Your task to perform on an android device: Go to settings Image 0: 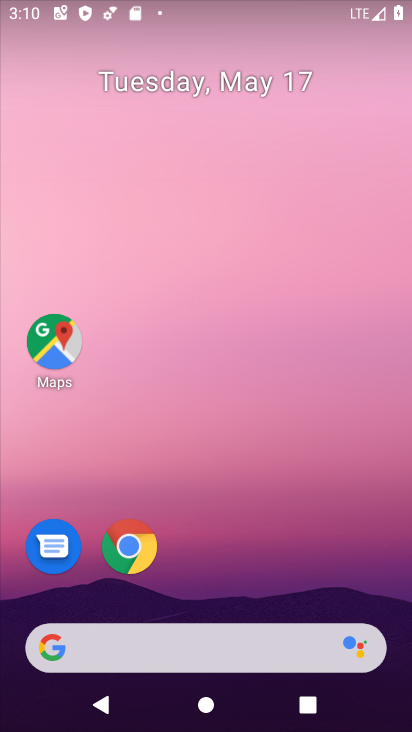
Step 0: press home button
Your task to perform on an android device: Go to settings Image 1: 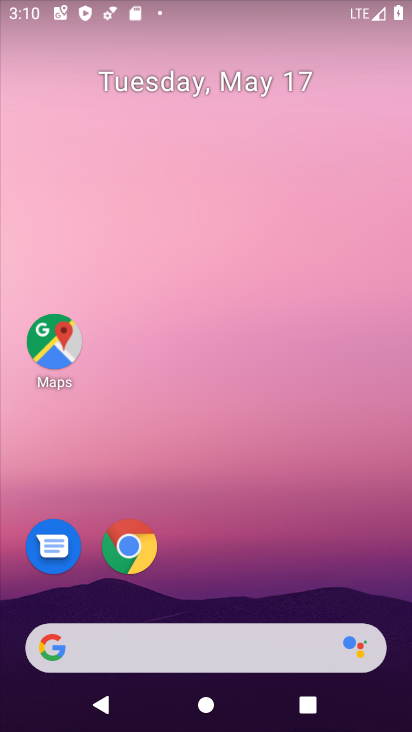
Step 1: drag from (183, 575) to (238, 21)
Your task to perform on an android device: Go to settings Image 2: 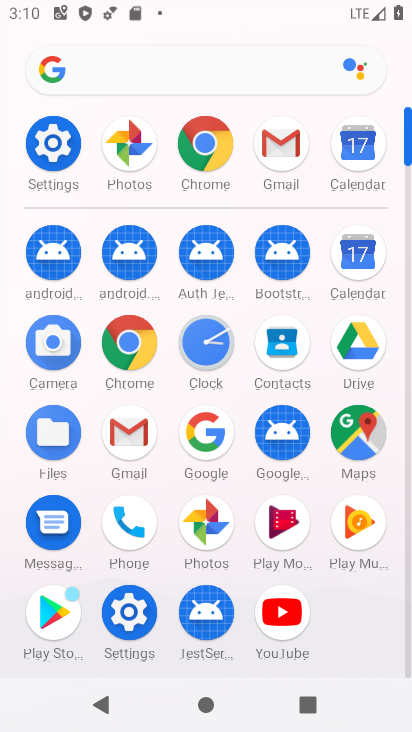
Step 2: click (49, 133)
Your task to perform on an android device: Go to settings Image 3: 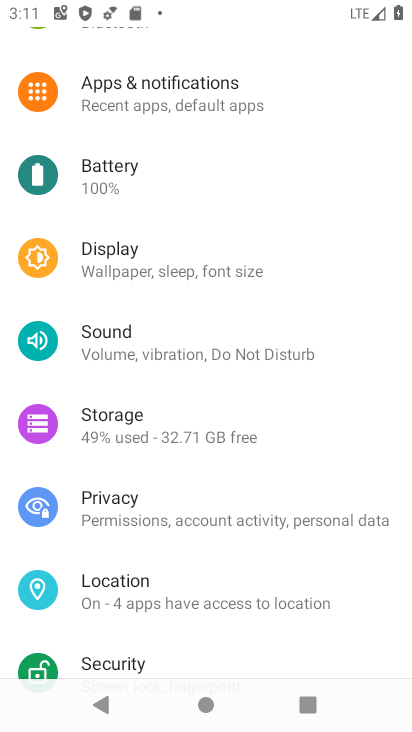
Step 3: task complete